Your task to perform on an android device: What's on my calendar tomorrow? Image 0: 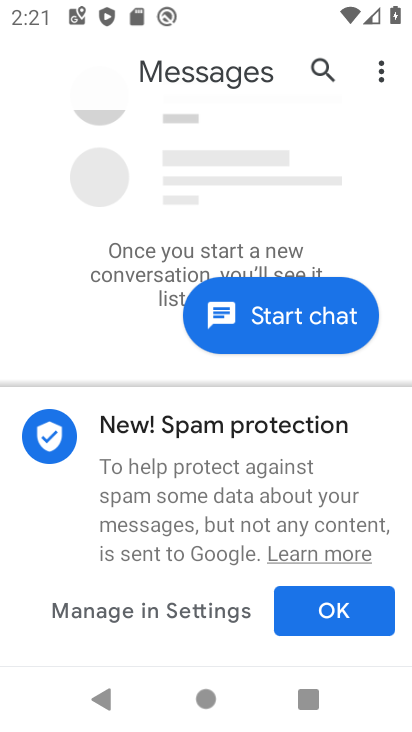
Step 0: press home button
Your task to perform on an android device: What's on my calendar tomorrow? Image 1: 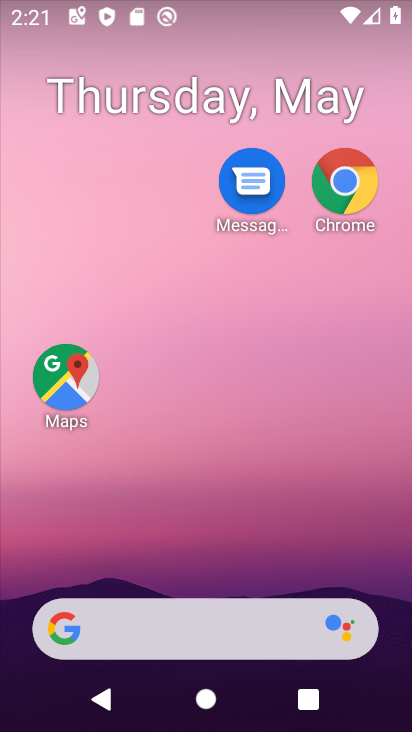
Step 1: drag from (278, 560) to (293, 65)
Your task to perform on an android device: What's on my calendar tomorrow? Image 2: 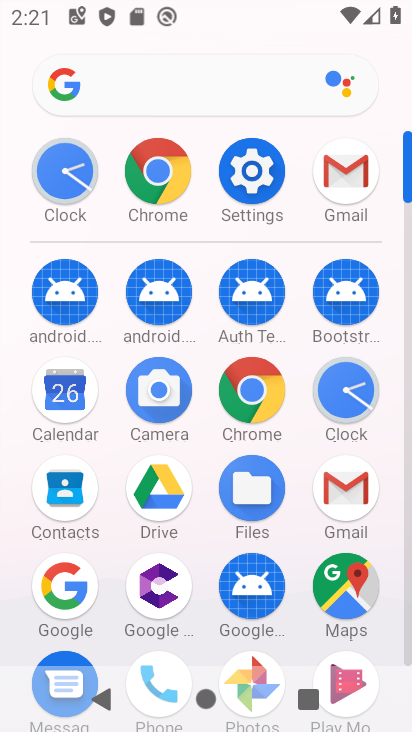
Step 2: click (257, 407)
Your task to perform on an android device: What's on my calendar tomorrow? Image 3: 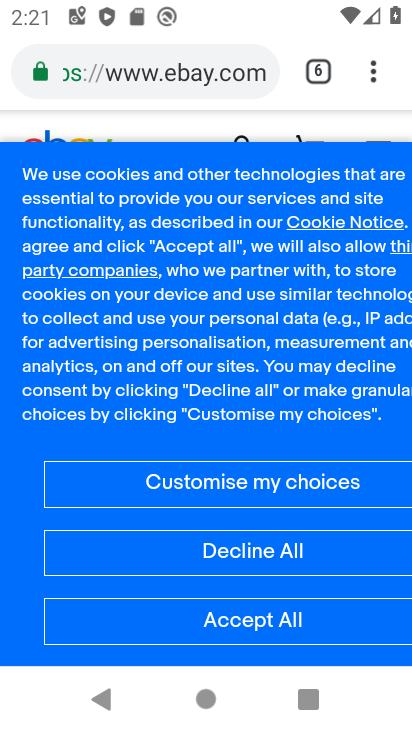
Step 3: press home button
Your task to perform on an android device: What's on my calendar tomorrow? Image 4: 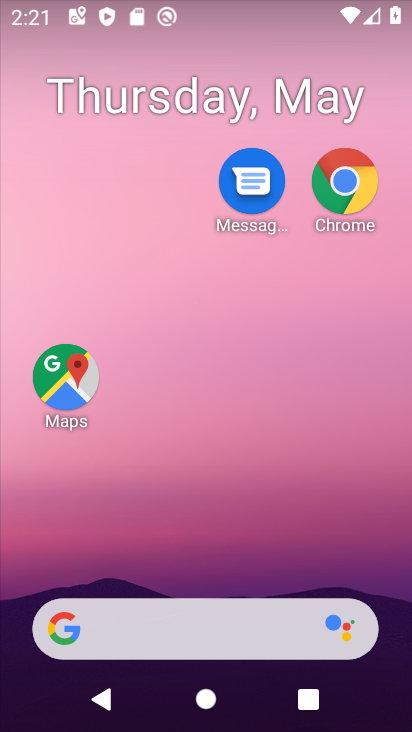
Step 4: drag from (293, 591) to (296, 3)
Your task to perform on an android device: What's on my calendar tomorrow? Image 5: 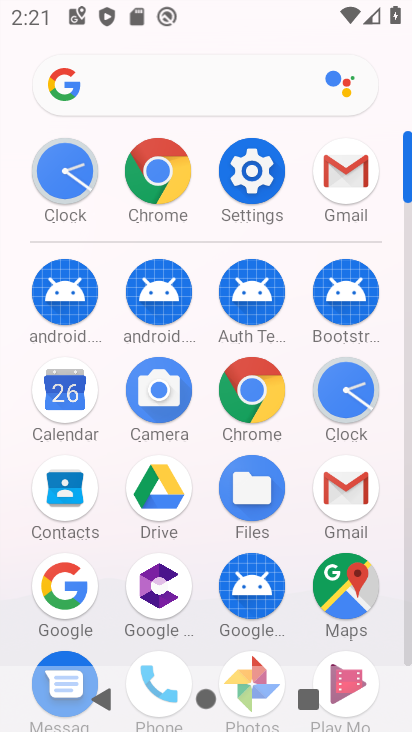
Step 5: click (67, 417)
Your task to perform on an android device: What's on my calendar tomorrow? Image 6: 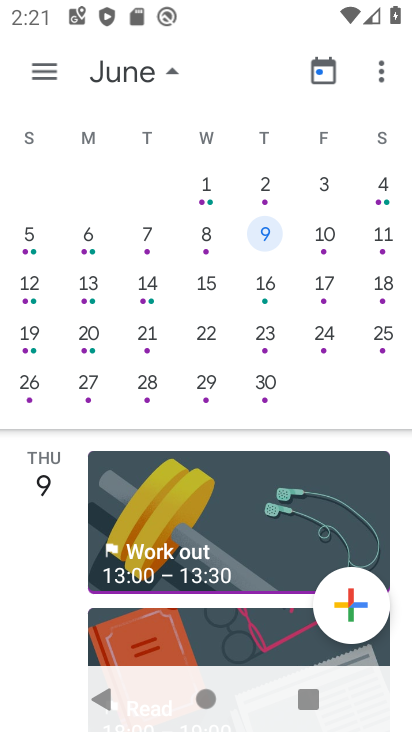
Step 6: drag from (49, 315) to (384, 340)
Your task to perform on an android device: What's on my calendar tomorrow? Image 7: 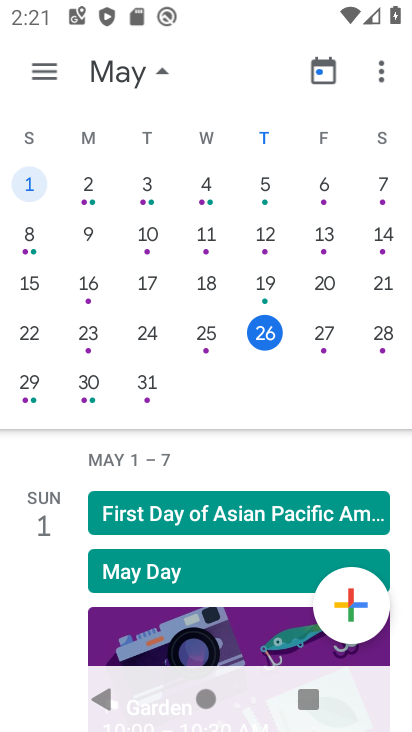
Step 7: click (314, 330)
Your task to perform on an android device: What's on my calendar tomorrow? Image 8: 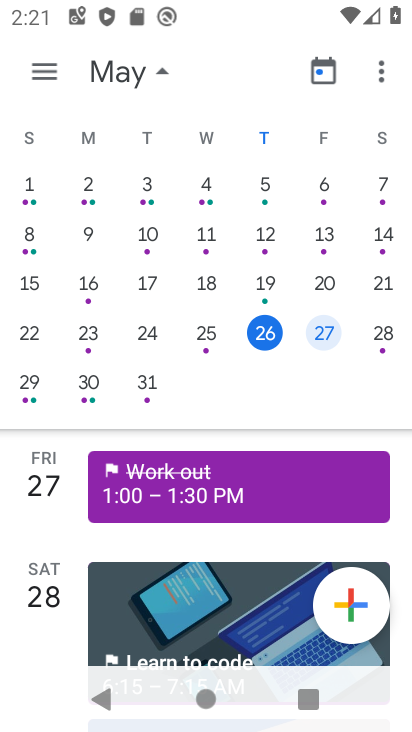
Step 8: task complete